Your task to perform on an android device: turn off location Image 0: 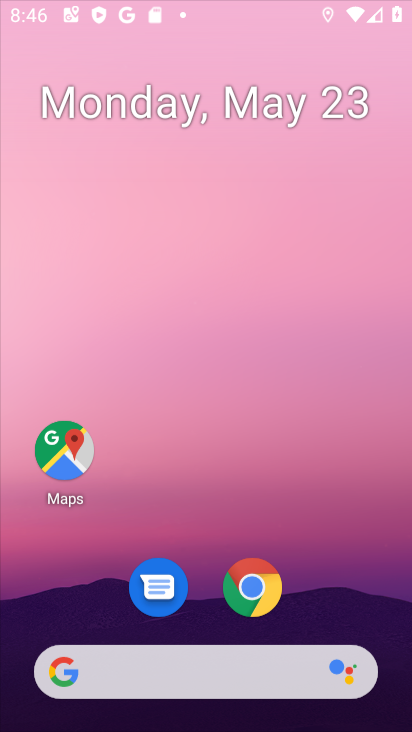
Step 0: click (261, 35)
Your task to perform on an android device: turn off location Image 1: 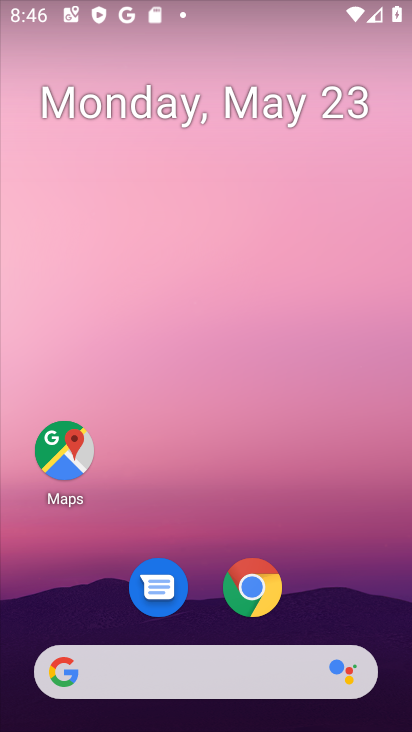
Step 1: drag from (203, 529) to (264, 77)
Your task to perform on an android device: turn off location Image 2: 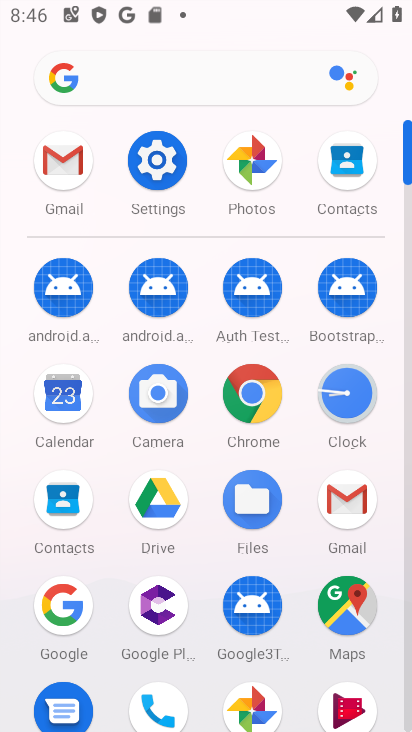
Step 2: click (163, 152)
Your task to perform on an android device: turn off location Image 3: 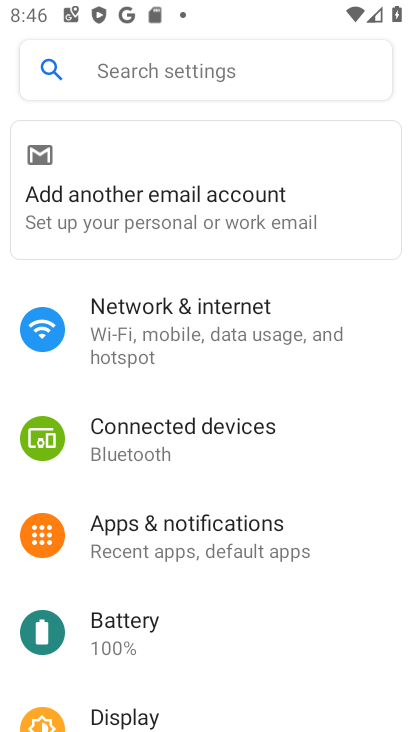
Step 3: drag from (192, 609) to (239, 207)
Your task to perform on an android device: turn off location Image 4: 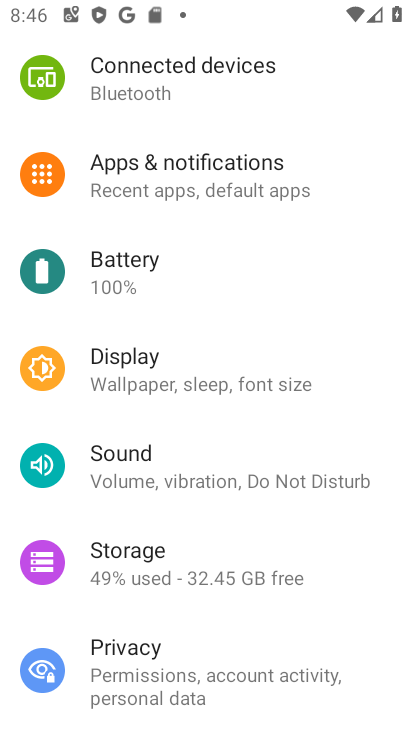
Step 4: drag from (154, 628) to (277, 95)
Your task to perform on an android device: turn off location Image 5: 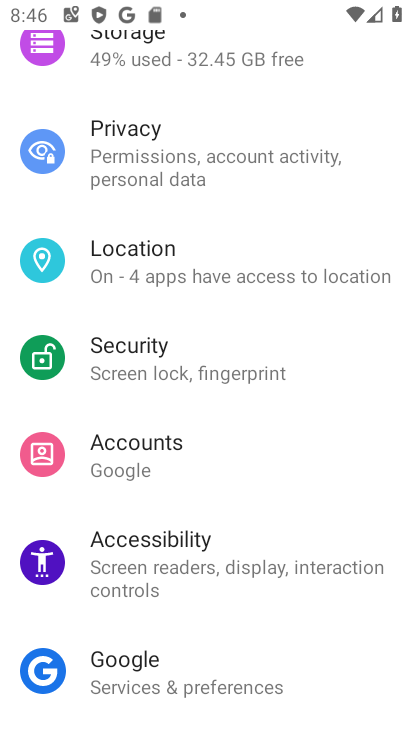
Step 5: click (135, 246)
Your task to perform on an android device: turn off location Image 6: 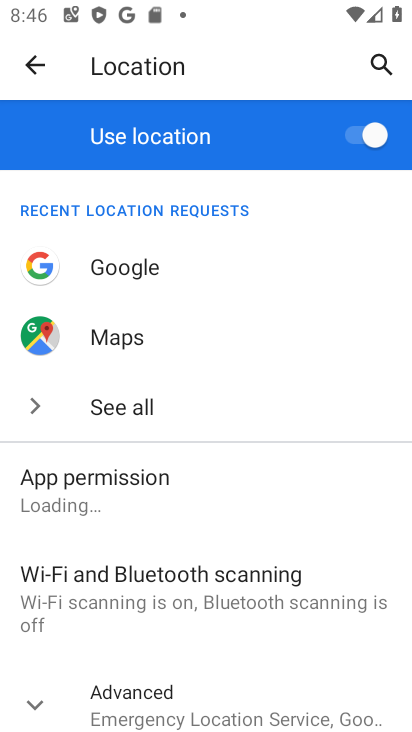
Step 6: click (366, 136)
Your task to perform on an android device: turn off location Image 7: 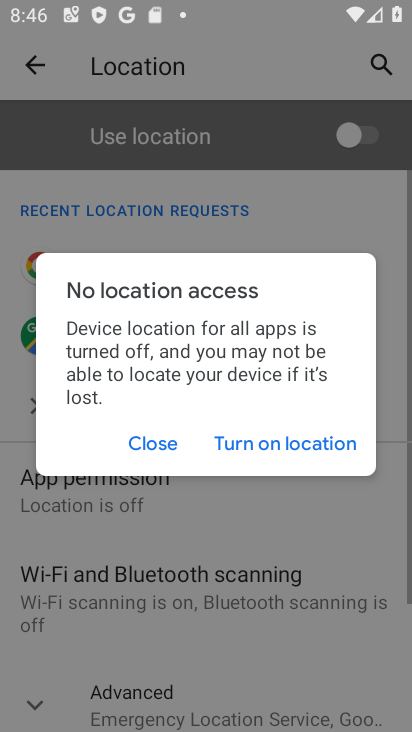
Step 7: task complete